Your task to perform on an android device: manage bookmarks in the chrome app Image 0: 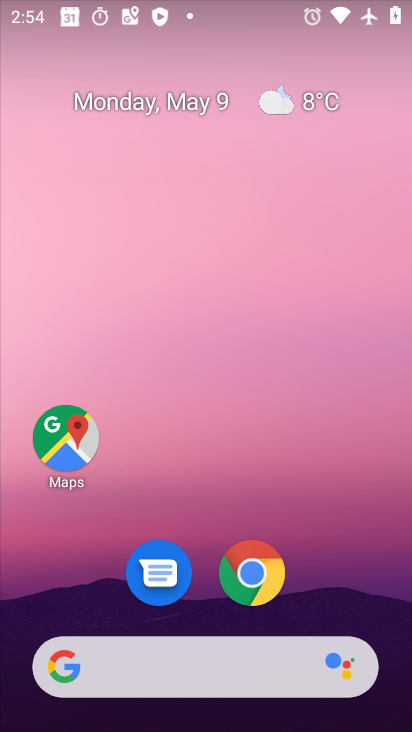
Step 0: drag from (185, 690) to (306, 245)
Your task to perform on an android device: manage bookmarks in the chrome app Image 1: 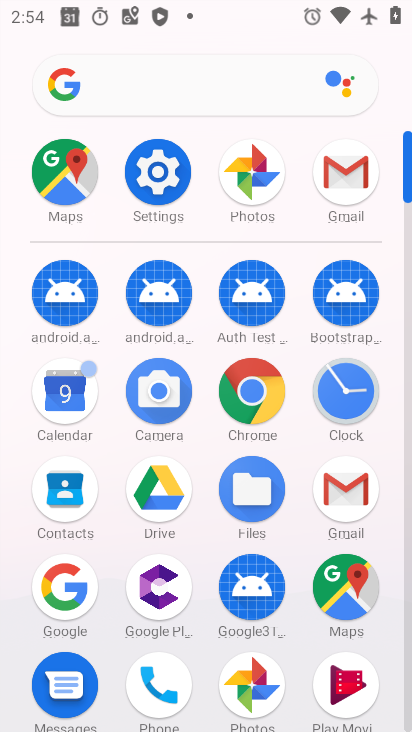
Step 1: click (247, 388)
Your task to perform on an android device: manage bookmarks in the chrome app Image 2: 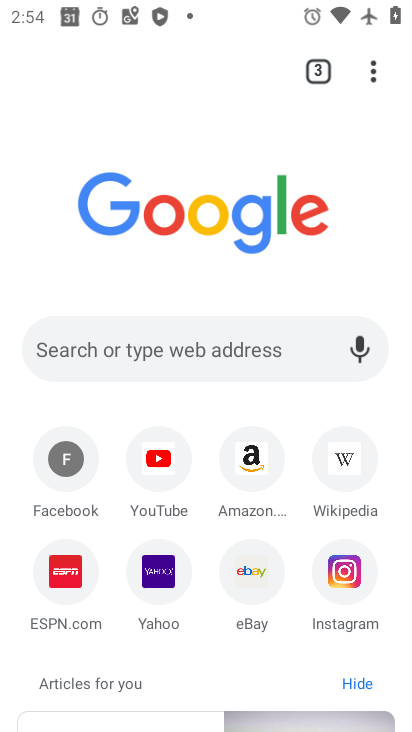
Step 2: task complete